Your task to perform on an android device: find which apps use the phone's location Image 0: 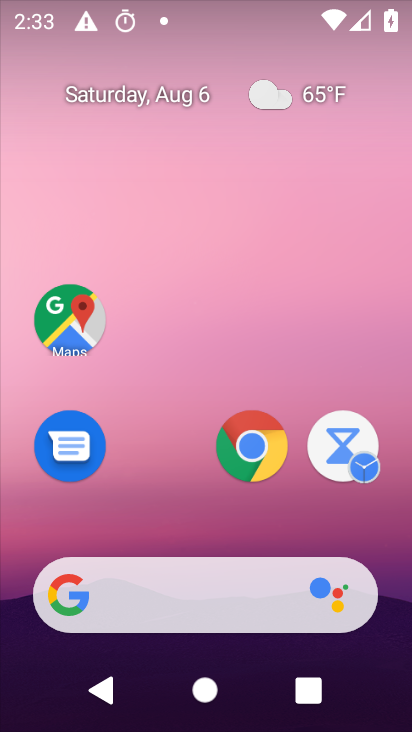
Step 0: drag from (263, 708) to (122, 285)
Your task to perform on an android device: find which apps use the phone's location Image 1: 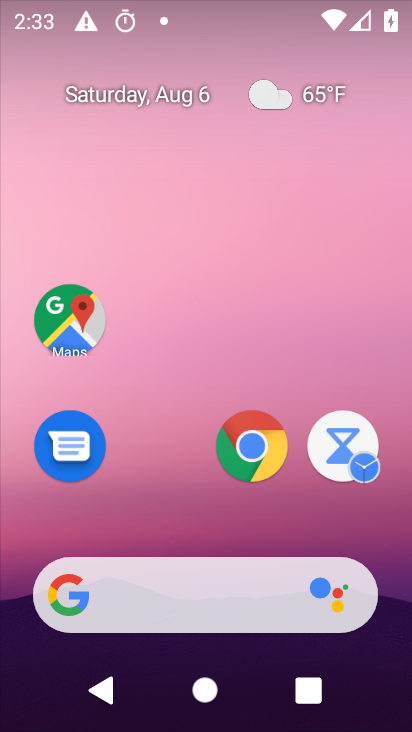
Step 1: click (210, 571)
Your task to perform on an android device: find which apps use the phone's location Image 2: 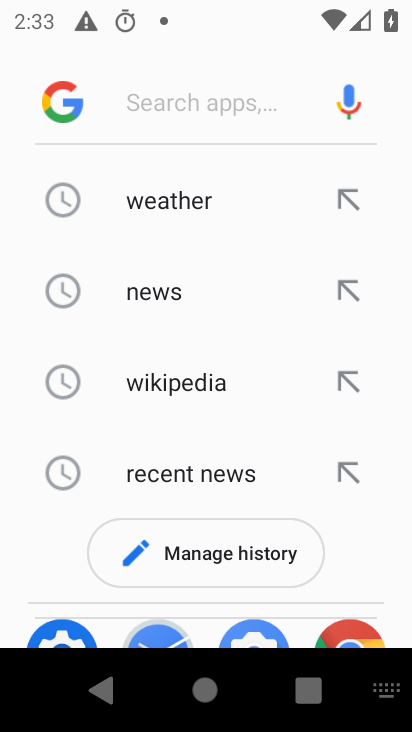
Step 2: press back button
Your task to perform on an android device: find which apps use the phone's location Image 3: 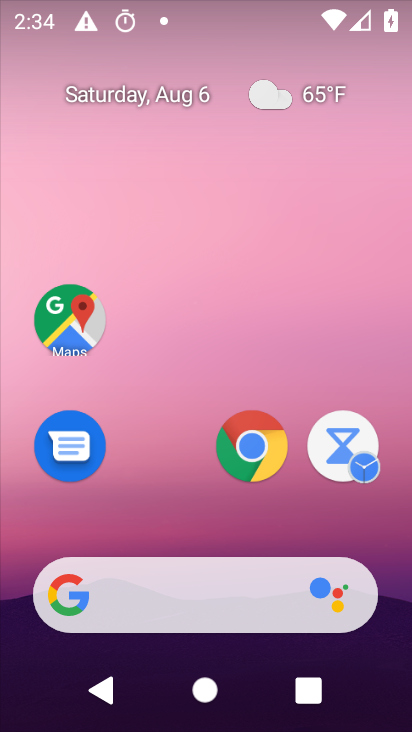
Step 3: drag from (277, 671) to (189, 99)
Your task to perform on an android device: find which apps use the phone's location Image 4: 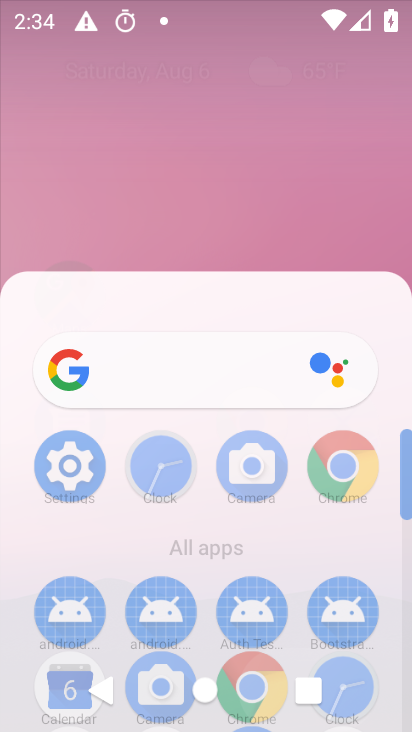
Step 4: drag from (229, 387) to (208, 227)
Your task to perform on an android device: find which apps use the phone's location Image 5: 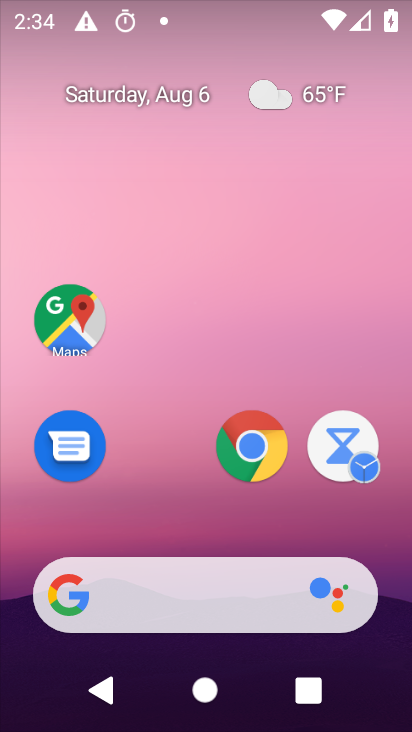
Step 5: drag from (245, 545) to (138, 70)
Your task to perform on an android device: find which apps use the phone's location Image 6: 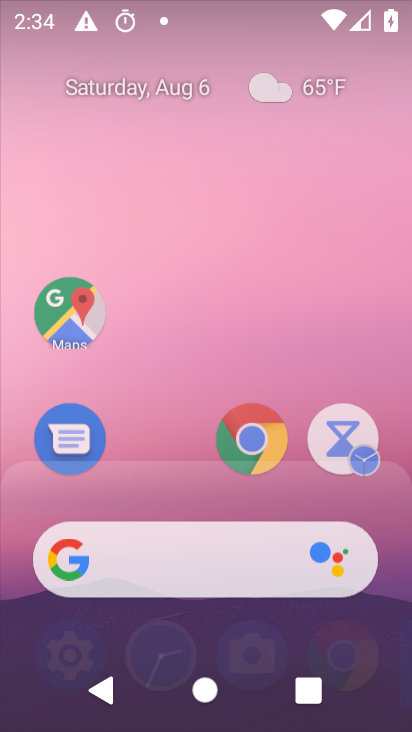
Step 6: drag from (183, 448) to (159, 184)
Your task to perform on an android device: find which apps use the phone's location Image 7: 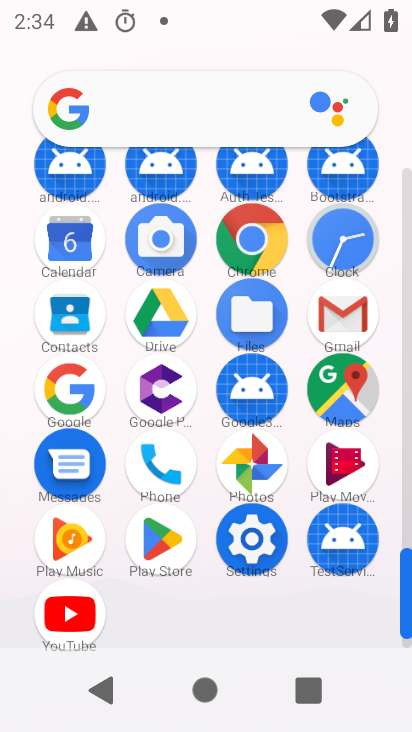
Step 7: click (254, 540)
Your task to perform on an android device: find which apps use the phone's location Image 8: 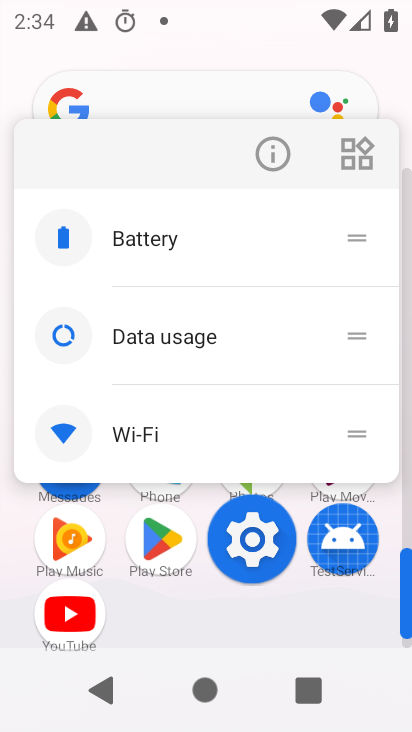
Step 8: click (254, 540)
Your task to perform on an android device: find which apps use the phone's location Image 9: 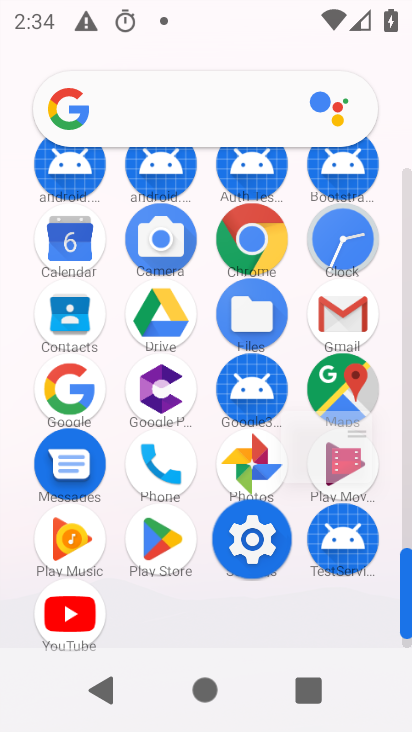
Step 9: click (254, 540)
Your task to perform on an android device: find which apps use the phone's location Image 10: 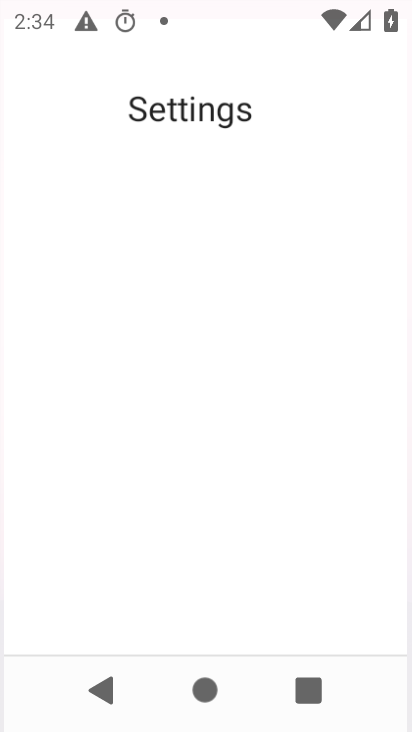
Step 10: click (252, 536)
Your task to perform on an android device: find which apps use the phone's location Image 11: 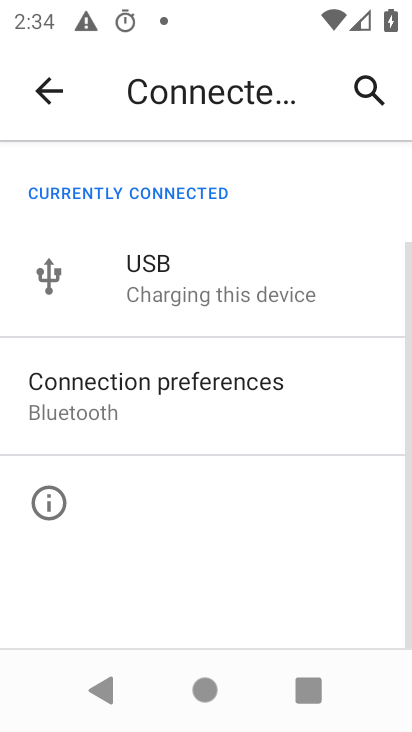
Step 11: click (51, 90)
Your task to perform on an android device: find which apps use the phone's location Image 12: 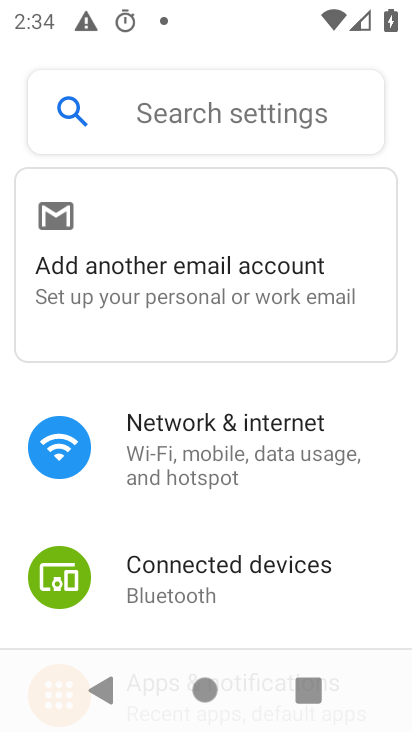
Step 12: drag from (180, 514) to (170, 278)
Your task to perform on an android device: find which apps use the phone's location Image 13: 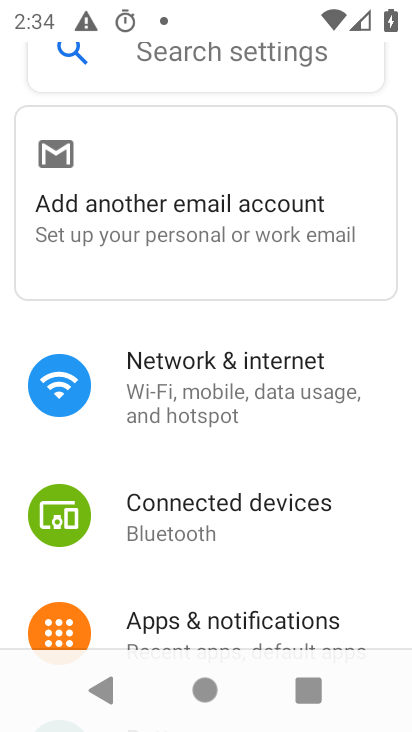
Step 13: drag from (219, 480) to (193, 326)
Your task to perform on an android device: find which apps use the phone's location Image 14: 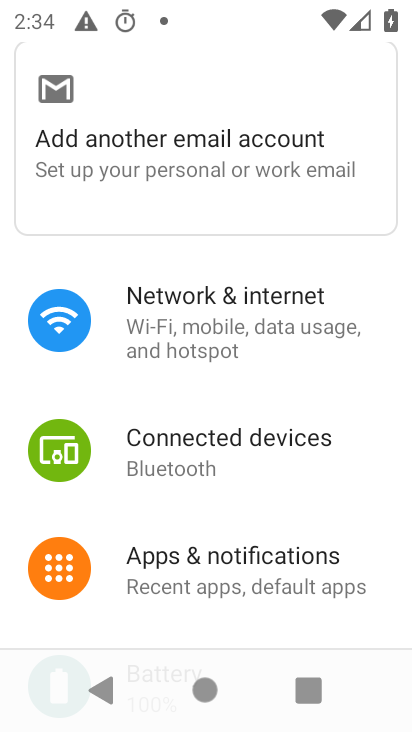
Step 14: drag from (212, 434) to (206, 318)
Your task to perform on an android device: find which apps use the phone's location Image 15: 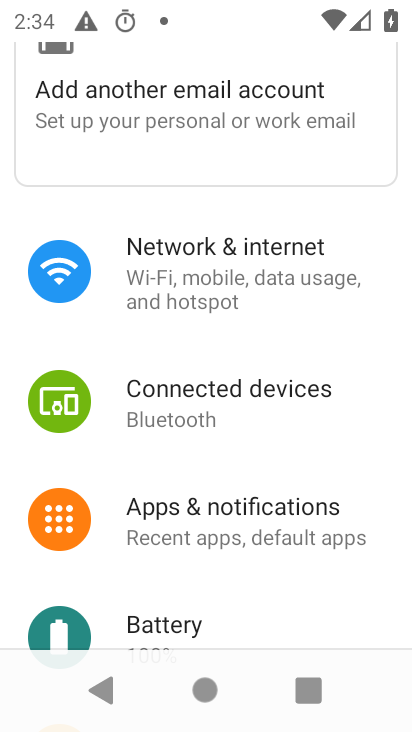
Step 15: drag from (228, 445) to (228, 246)
Your task to perform on an android device: find which apps use the phone's location Image 16: 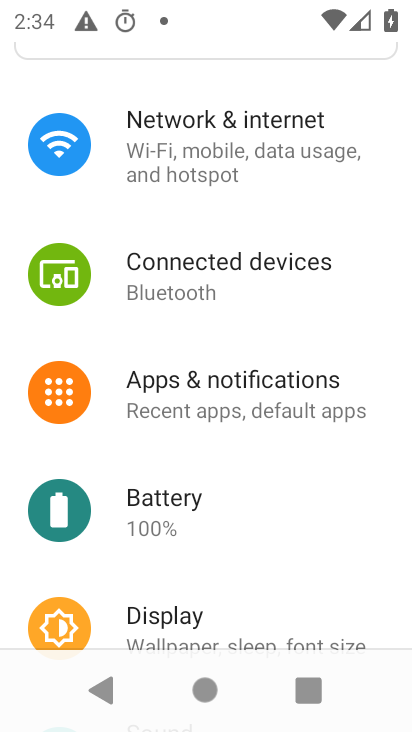
Step 16: drag from (217, 540) to (213, 181)
Your task to perform on an android device: find which apps use the phone's location Image 17: 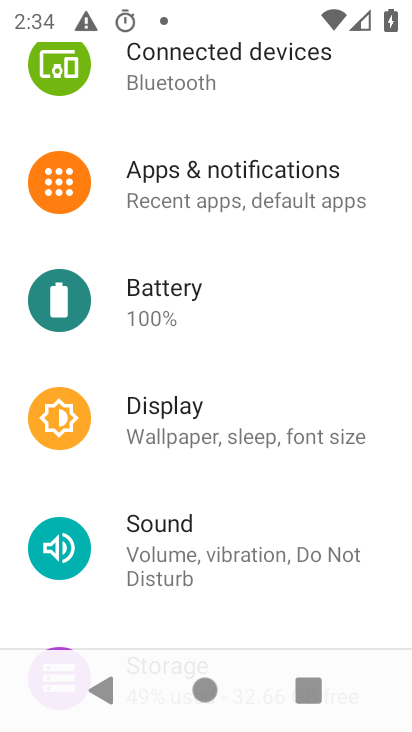
Step 17: drag from (229, 523) to (211, 222)
Your task to perform on an android device: find which apps use the phone's location Image 18: 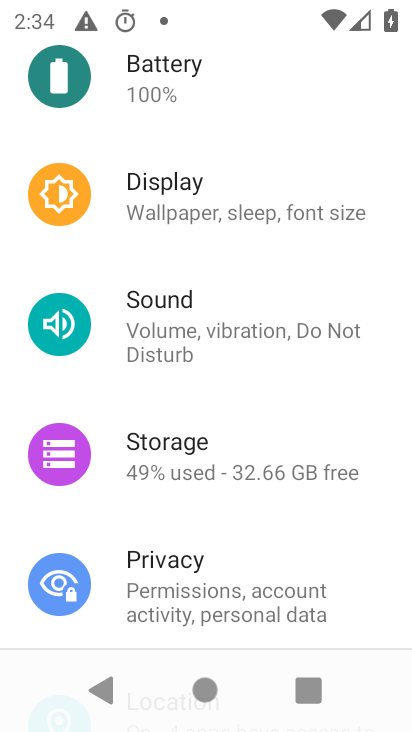
Step 18: drag from (221, 442) to (226, 232)
Your task to perform on an android device: find which apps use the phone's location Image 19: 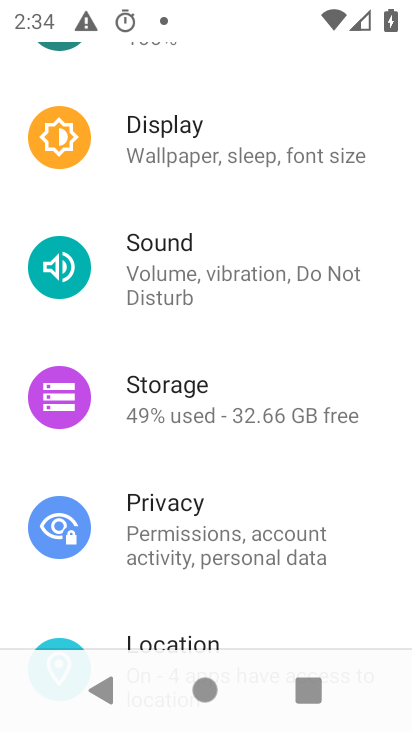
Step 19: drag from (198, 524) to (182, 214)
Your task to perform on an android device: find which apps use the phone's location Image 20: 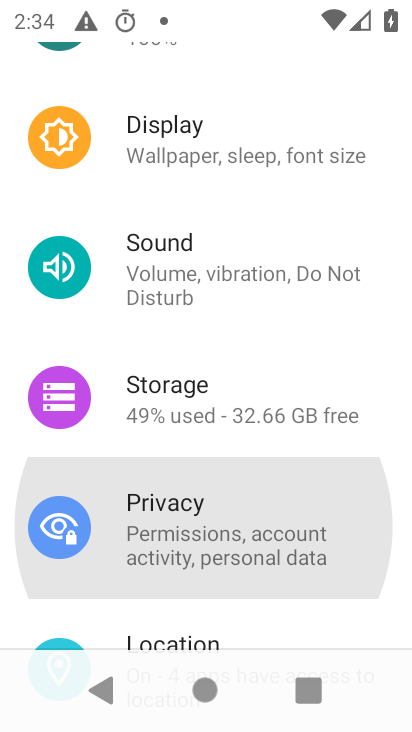
Step 20: click (222, 238)
Your task to perform on an android device: find which apps use the phone's location Image 21: 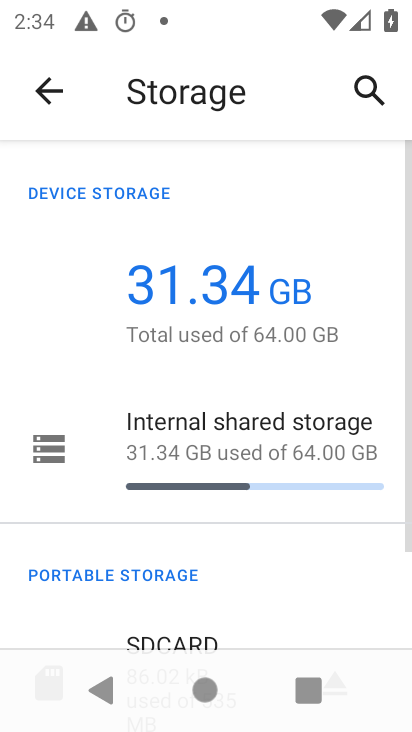
Step 21: click (39, 94)
Your task to perform on an android device: find which apps use the phone's location Image 22: 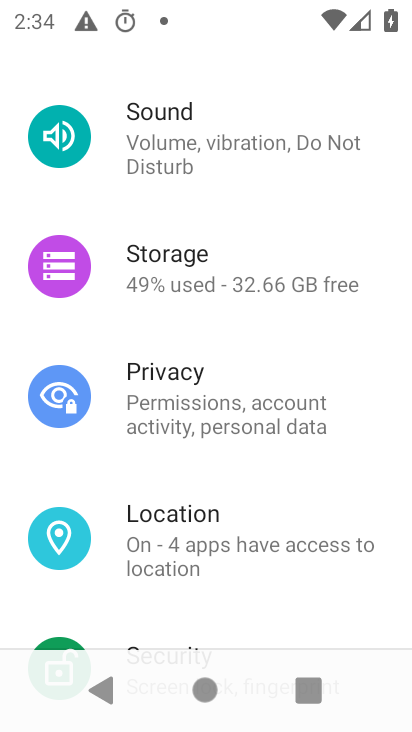
Step 22: click (190, 493)
Your task to perform on an android device: find which apps use the phone's location Image 23: 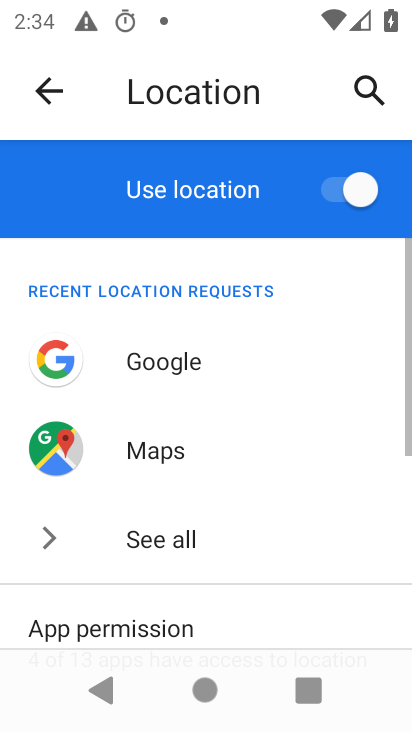
Step 23: task complete